Your task to perform on an android device: clear all cookies in the chrome app Image 0: 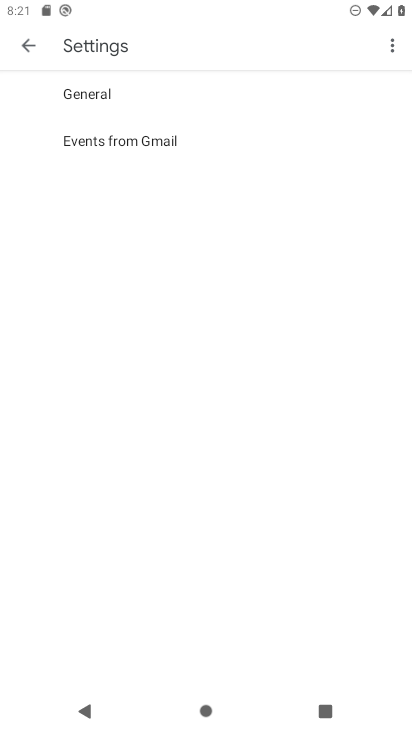
Step 0: press home button
Your task to perform on an android device: clear all cookies in the chrome app Image 1: 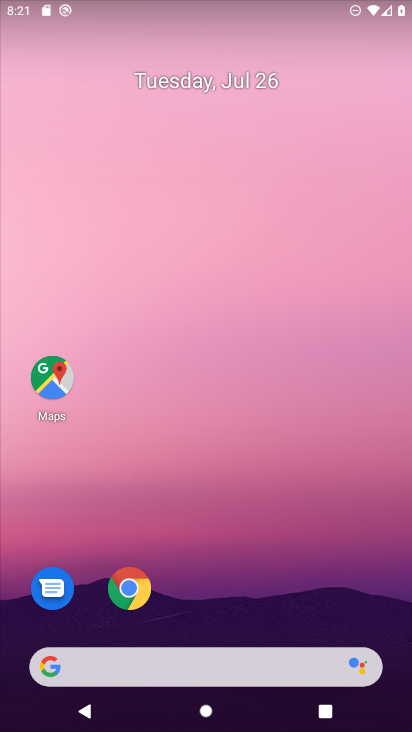
Step 1: click (136, 596)
Your task to perform on an android device: clear all cookies in the chrome app Image 2: 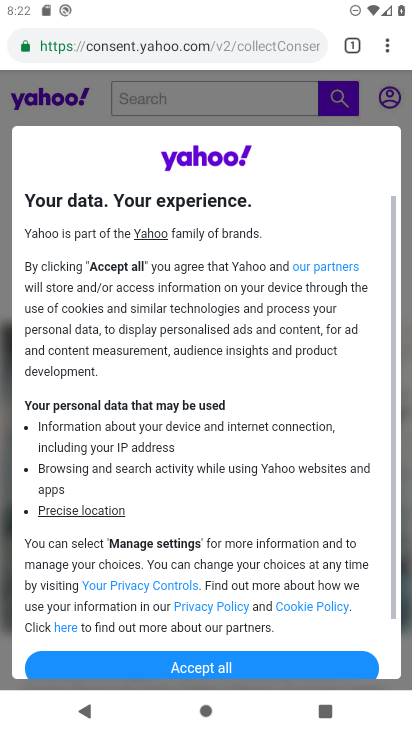
Step 2: click (391, 48)
Your task to perform on an android device: clear all cookies in the chrome app Image 3: 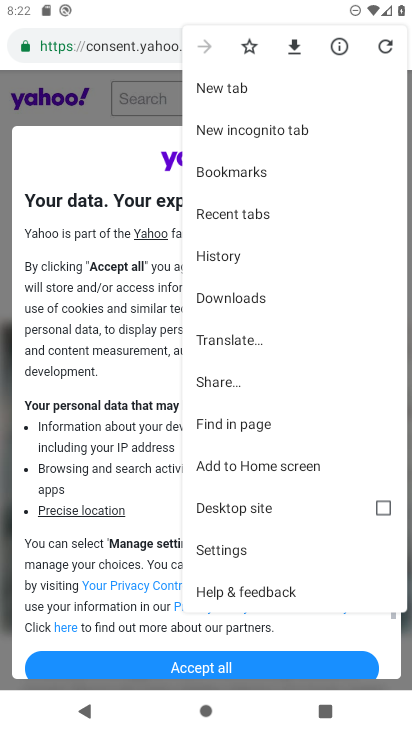
Step 3: click (242, 547)
Your task to perform on an android device: clear all cookies in the chrome app Image 4: 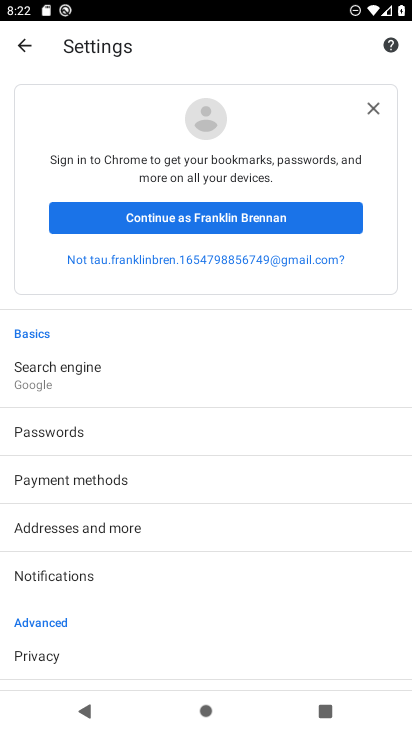
Step 4: drag from (130, 594) to (126, 360)
Your task to perform on an android device: clear all cookies in the chrome app Image 5: 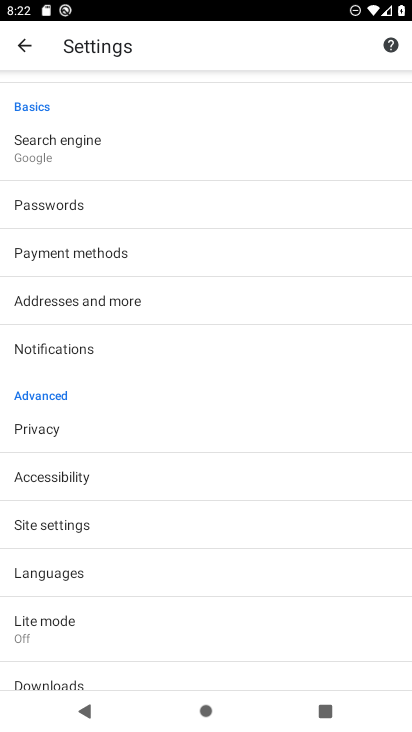
Step 5: click (47, 427)
Your task to perform on an android device: clear all cookies in the chrome app Image 6: 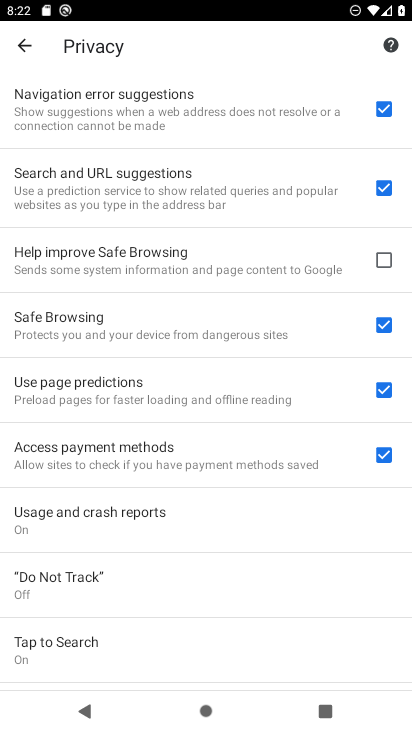
Step 6: drag from (223, 551) to (211, 198)
Your task to perform on an android device: clear all cookies in the chrome app Image 7: 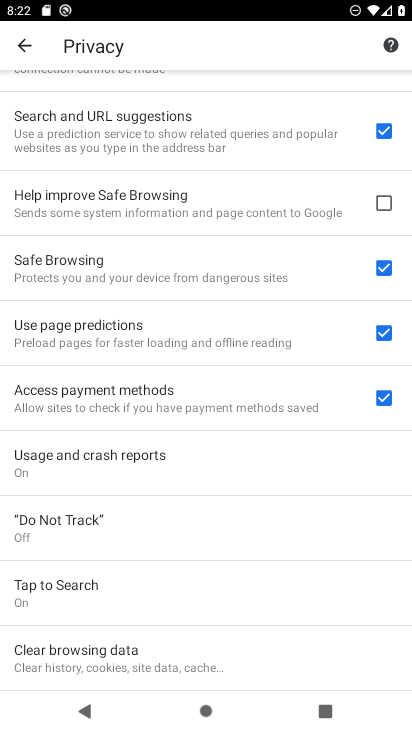
Step 7: click (114, 659)
Your task to perform on an android device: clear all cookies in the chrome app Image 8: 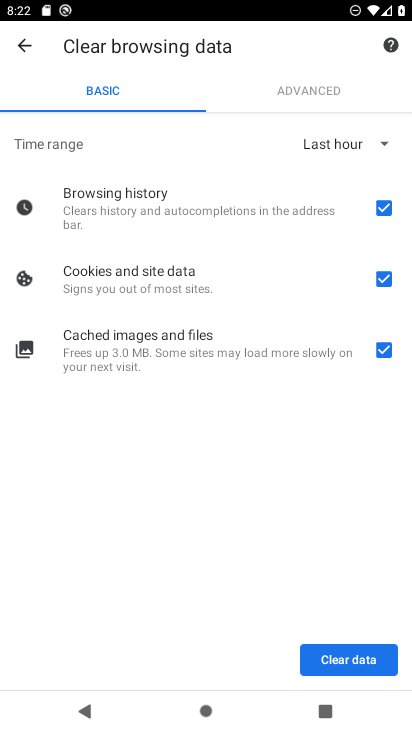
Step 8: click (388, 359)
Your task to perform on an android device: clear all cookies in the chrome app Image 9: 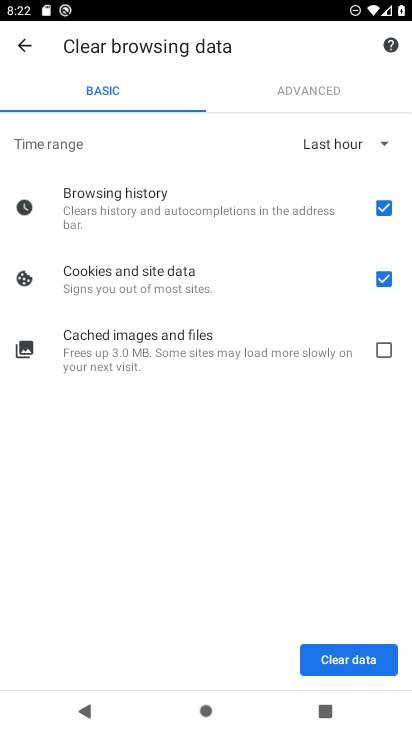
Step 9: click (384, 211)
Your task to perform on an android device: clear all cookies in the chrome app Image 10: 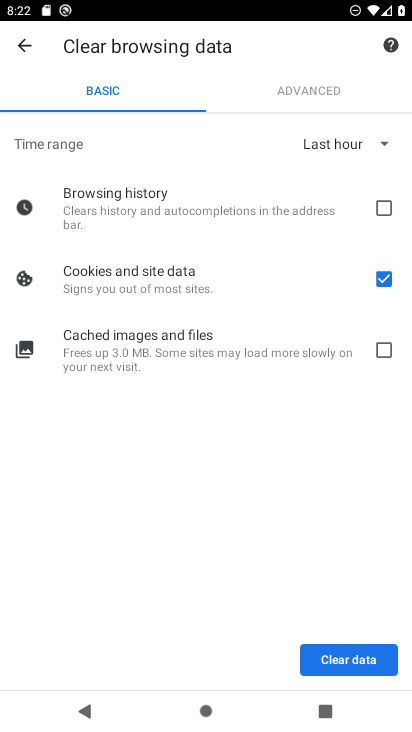
Step 10: click (354, 661)
Your task to perform on an android device: clear all cookies in the chrome app Image 11: 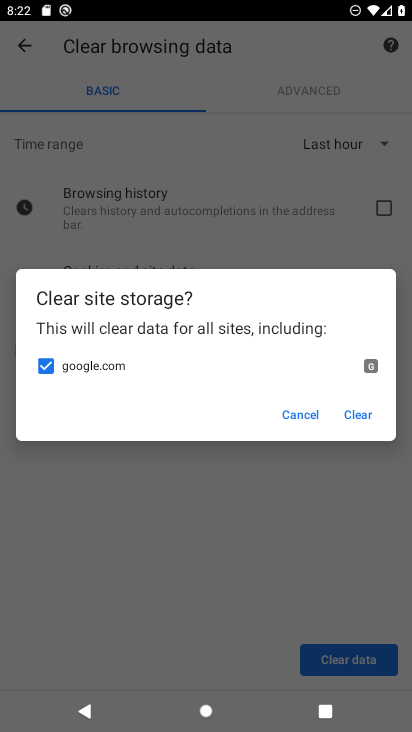
Step 11: click (370, 419)
Your task to perform on an android device: clear all cookies in the chrome app Image 12: 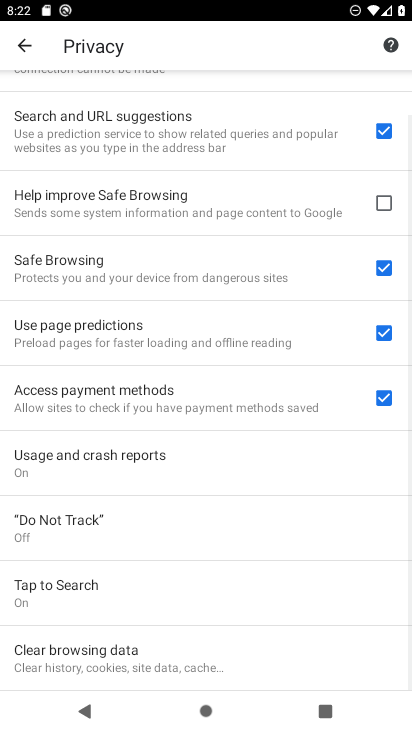
Step 12: task complete